Your task to perform on an android device: turn smart compose on in the gmail app Image 0: 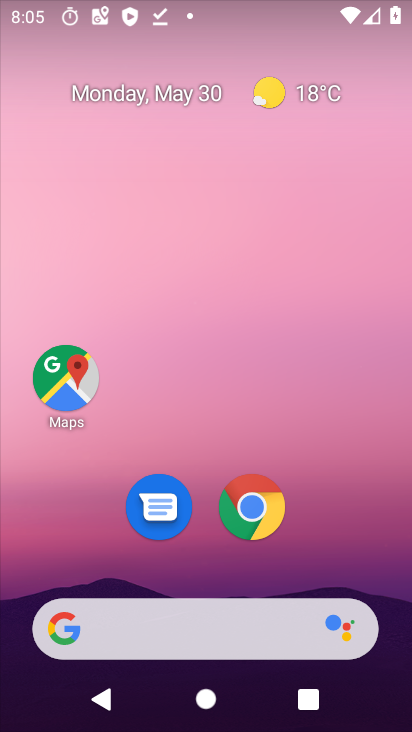
Step 0: drag from (338, 461) to (354, 200)
Your task to perform on an android device: turn smart compose on in the gmail app Image 1: 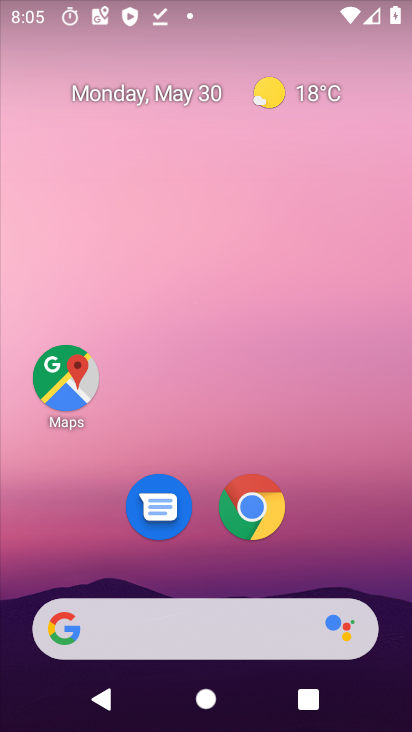
Step 1: drag from (322, 535) to (323, 131)
Your task to perform on an android device: turn smart compose on in the gmail app Image 2: 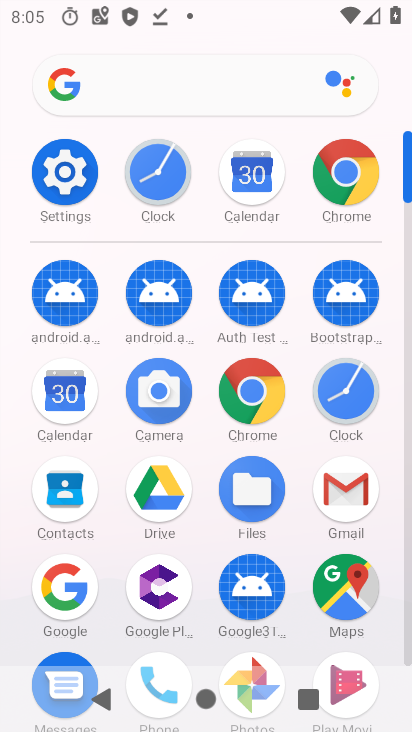
Step 2: click (348, 474)
Your task to perform on an android device: turn smart compose on in the gmail app Image 3: 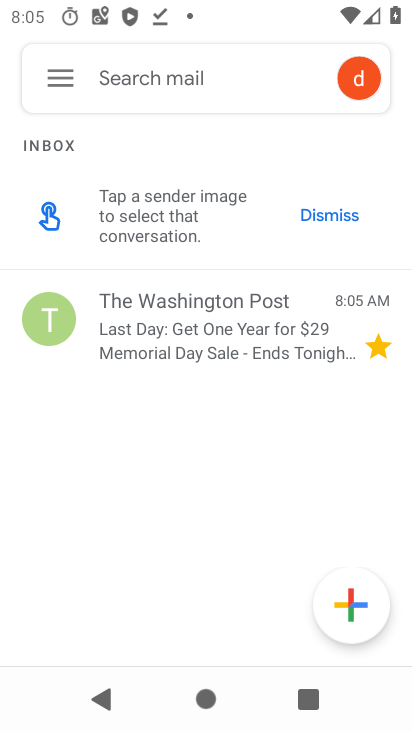
Step 3: click (50, 78)
Your task to perform on an android device: turn smart compose on in the gmail app Image 4: 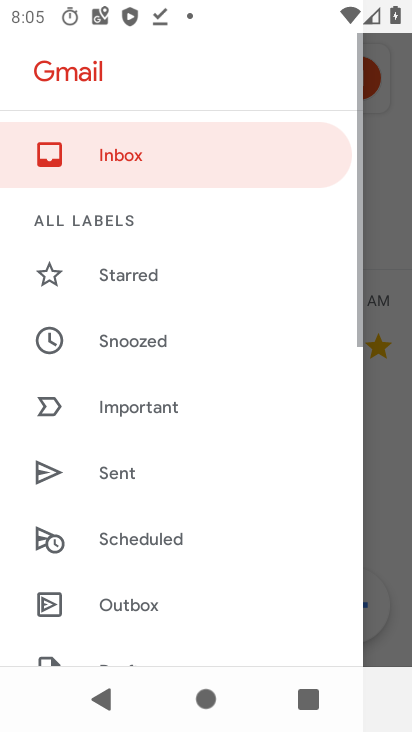
Step 4: drag from (148, 629) to (171, 202)
Your task to perform on an android device: turn smart compose on in the gmail app Image 5: 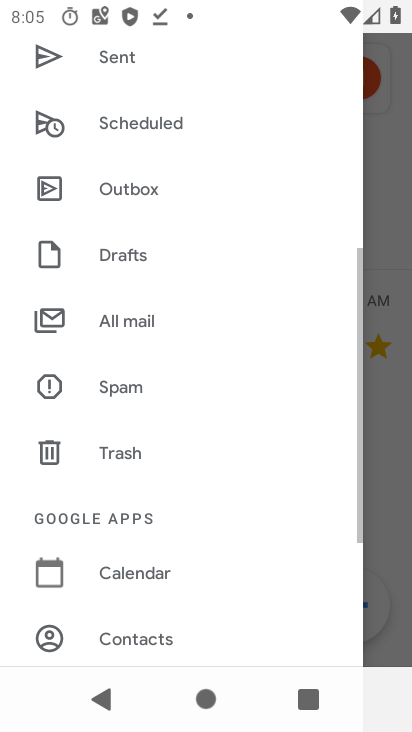
Step 5: drag from (168, 593) to (197, 298)
Your task to perform on an android device: turn smart compose on in the gmail app Image 6: 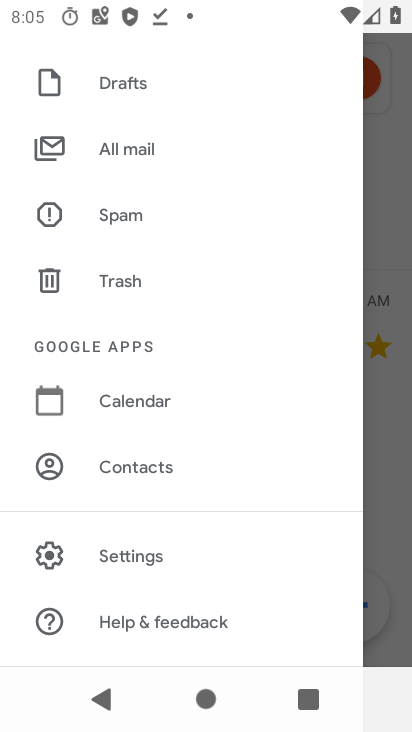
Step 6: click (165, 548)
Your task to perform on an android device: turn smart compose on in the gmail app Image 7: 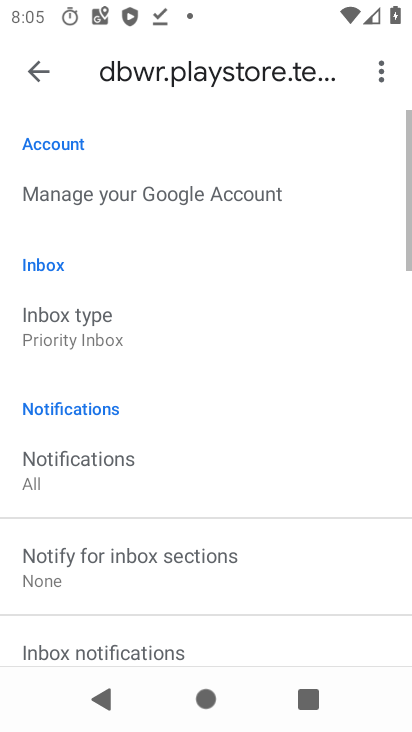
Step 7: task complete